Your task to perform on an android device: change notifications settings Image 0: 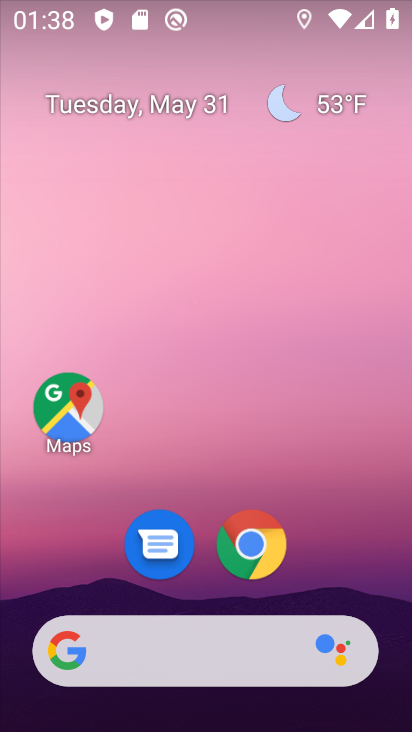
Step 0: drag from (338, 576) to (322, 0)
Your task to perform on an android device: change notifications settings Image 1: 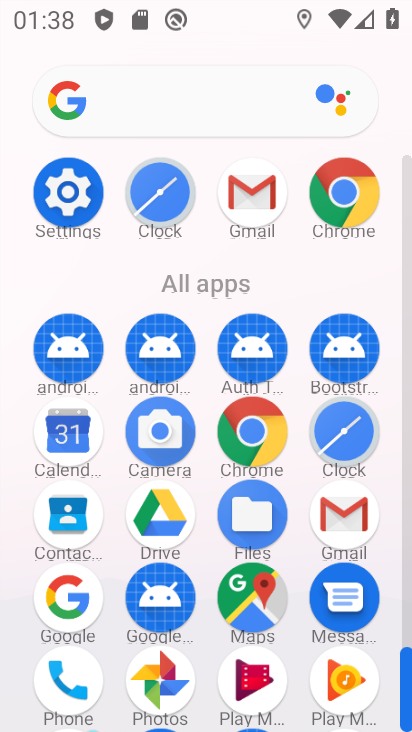
Step 1: click (47, 222)
Your task to perform on an android device: change notifications settings Image 2: 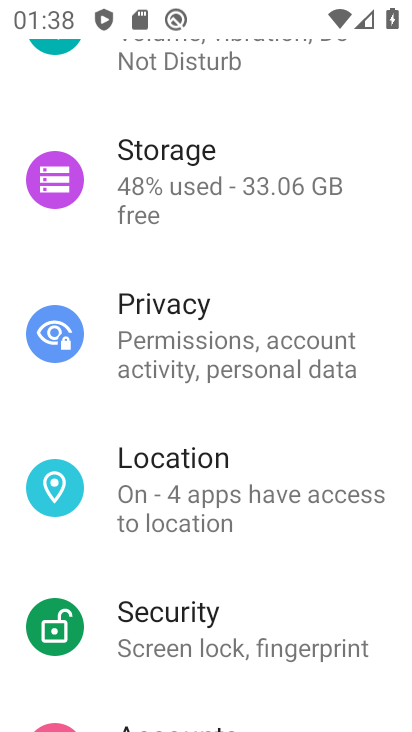
Step 2: click (218, 616)
Your task to perform on an android device: change notifications settings Image 3: 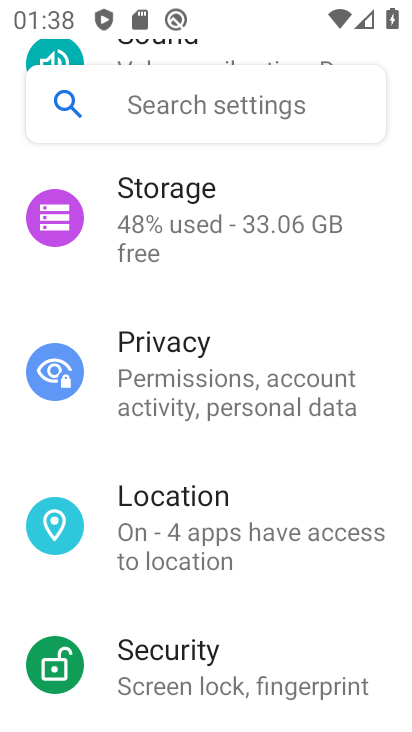
Step 3: drag from (172, 169) to (156, 610)
Your task to perform on an android device: change notifications settings Image 4: 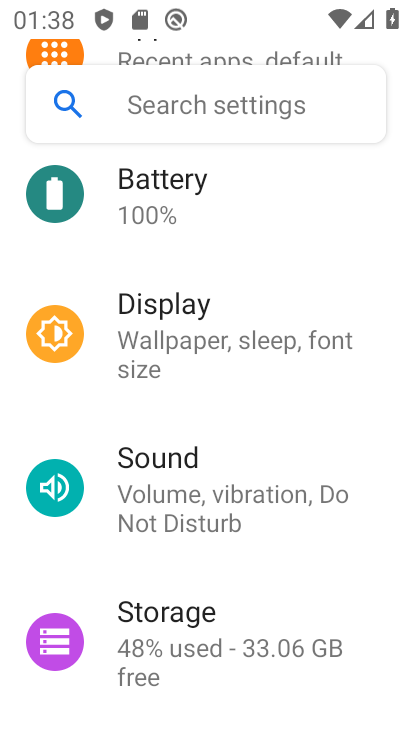
Step 4: drag from (170, 261) to (170, 712)
Your task to perform on an android device: change notifications settings Image 5: 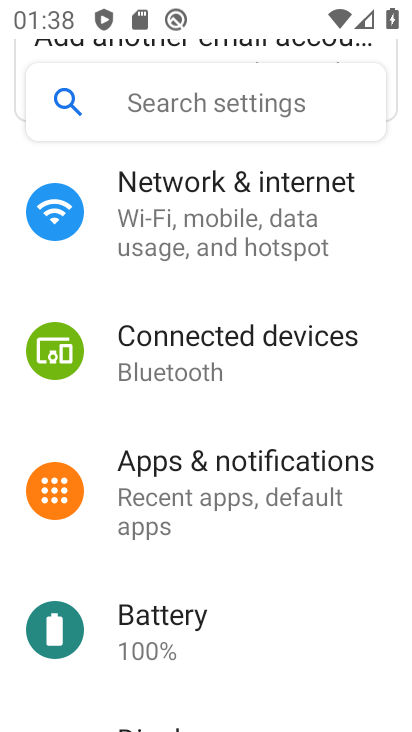
Step 5: click (197, 461)
Your task to perform on an android device: change notifications settings Image 6: 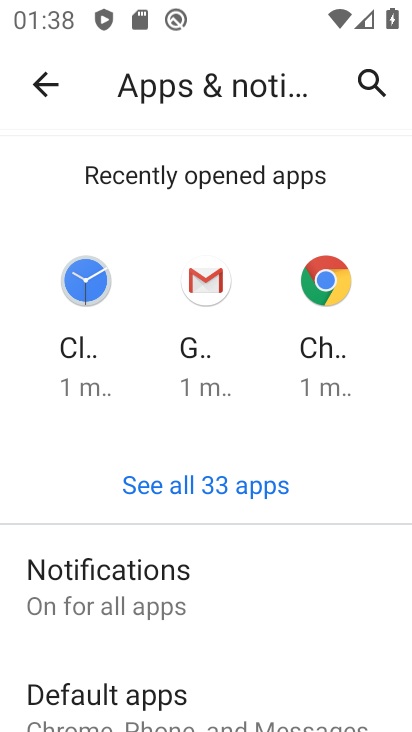
Step 6: click (208, 588)
Your task to perform on an android device: change notifications settings Image 7: 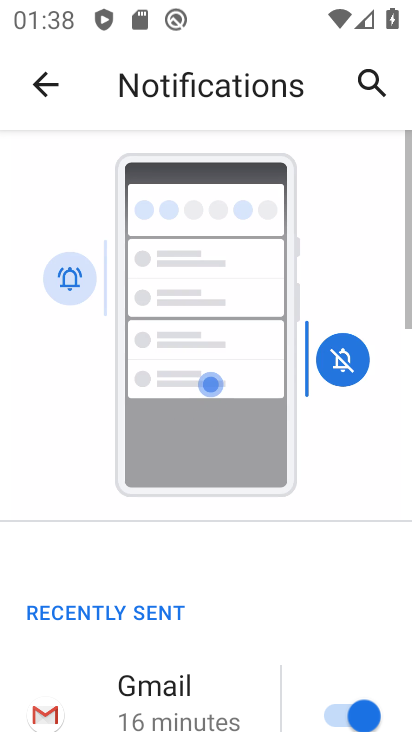
Step 7: drag from (208, 588) to (210, 185)
Your task to perform on an android device: change notifications settings Image 8: 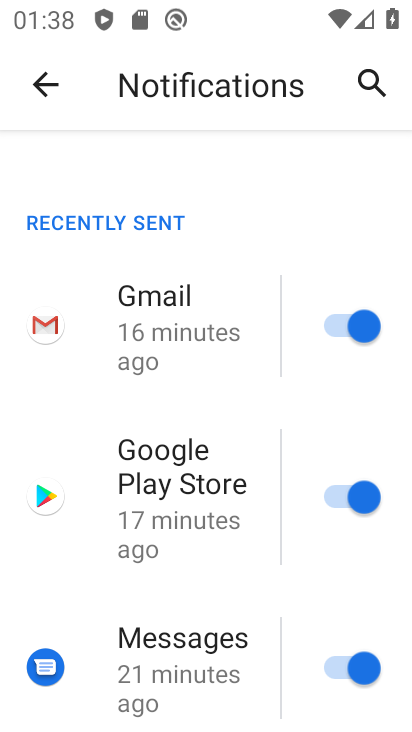
Step 8: drag from (210, 592) to (202, 111)
Your task to perform on an android device: change notifications settings Image 9: 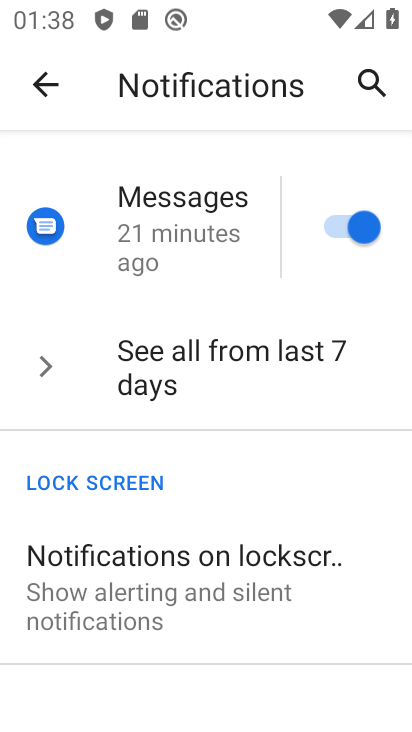
Step 9: drag from (212, 552) to (203, 164)
Your task to perform on an android device: change notifications settings Image 10: 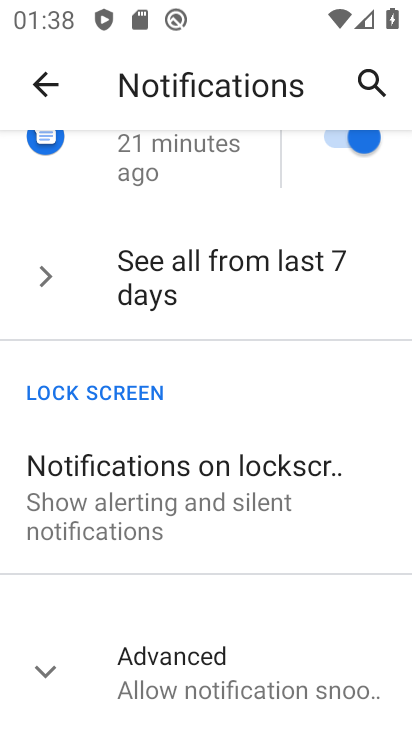
Step 10: click (195, 668)
Your task to perform on an android device: change notifications settings Image 11: 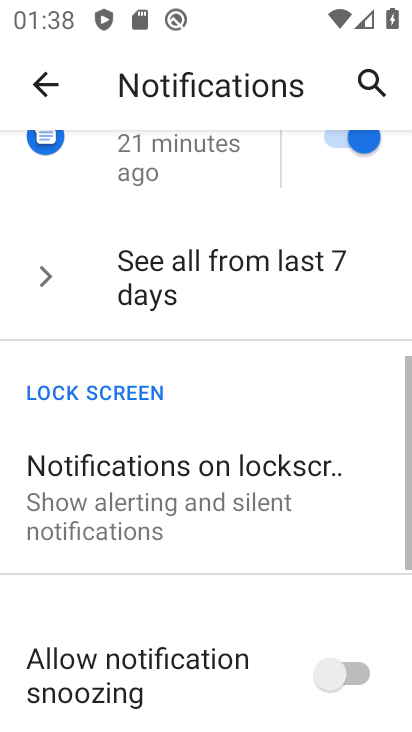
Step 11: drag from (196, 637) to (198, 142)
Your task to perform on an android device: change notifications settings Image 12: 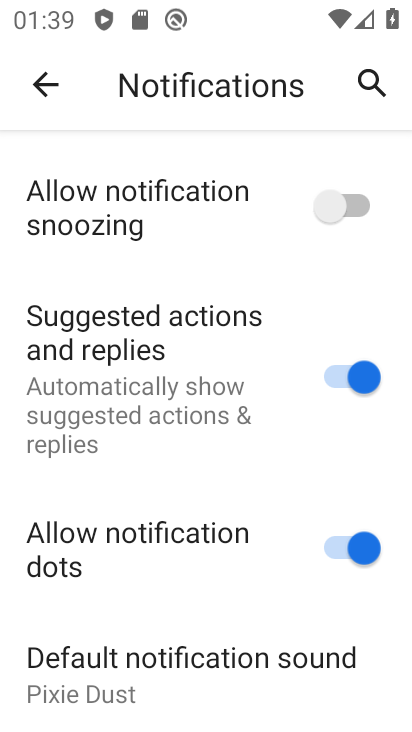
Step 12: click (345, 377)
Your task to perform on an android device: change notifications settings Image 13: 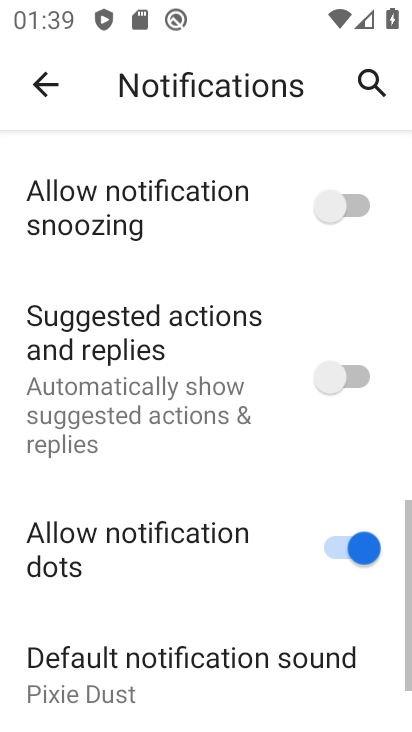
Step 13: click (368, 532)
Your task to perform on an android device: change notifications settings Image 14: 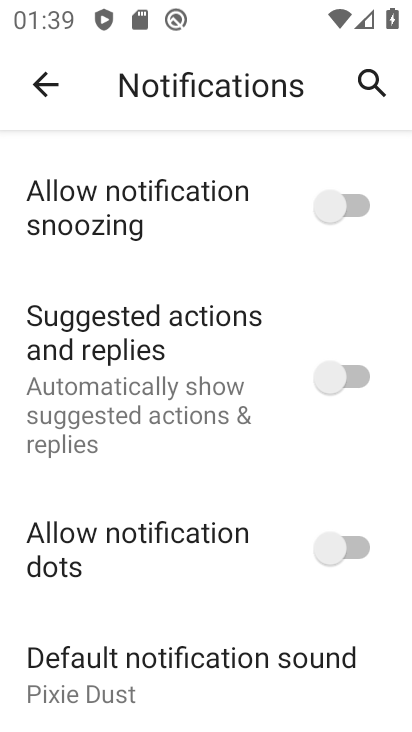
Step 14: task complete